Your task to perform on an android device: Clear all items from cart on newegg.com. Image 0: 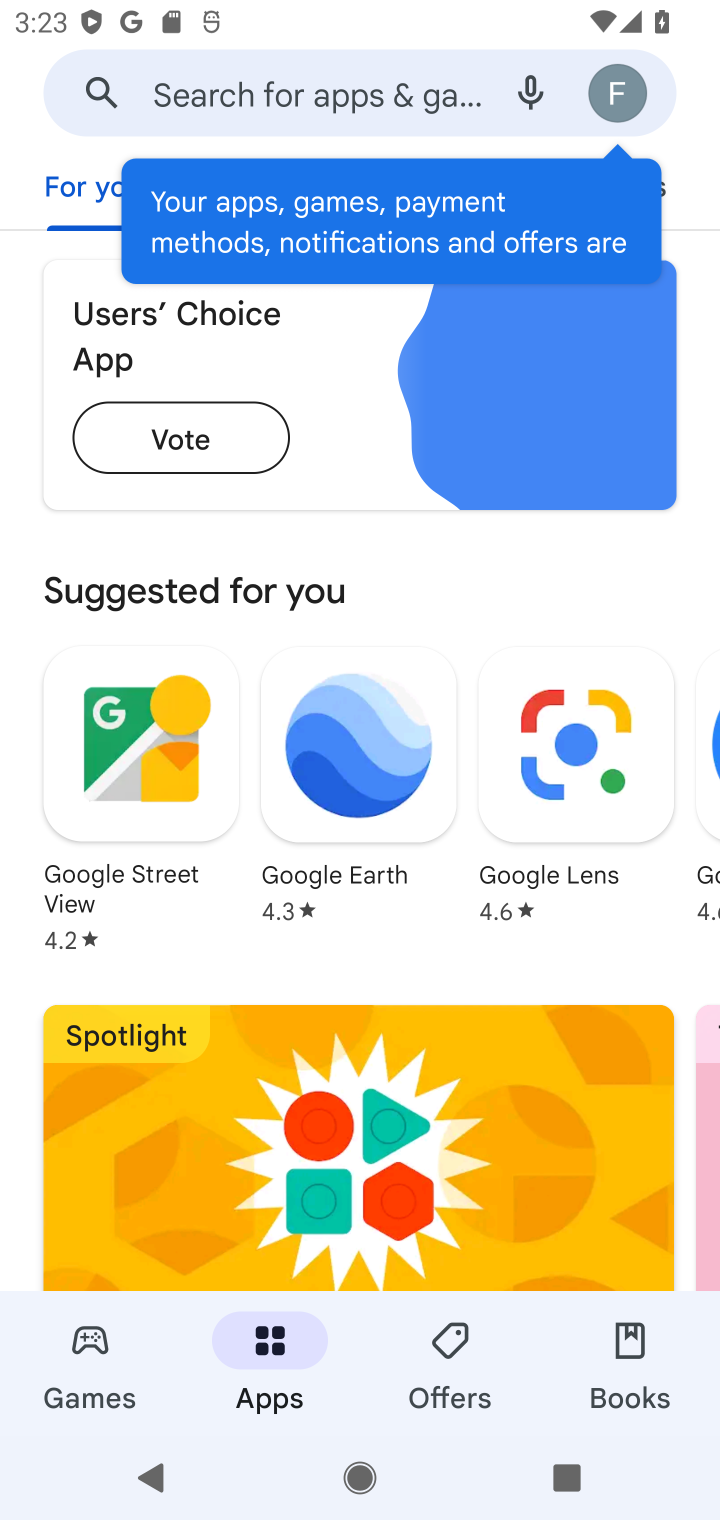
Step 0: press home button
Your task to perform on an android device: Clear all items from cart on newegg.com. Image 1: 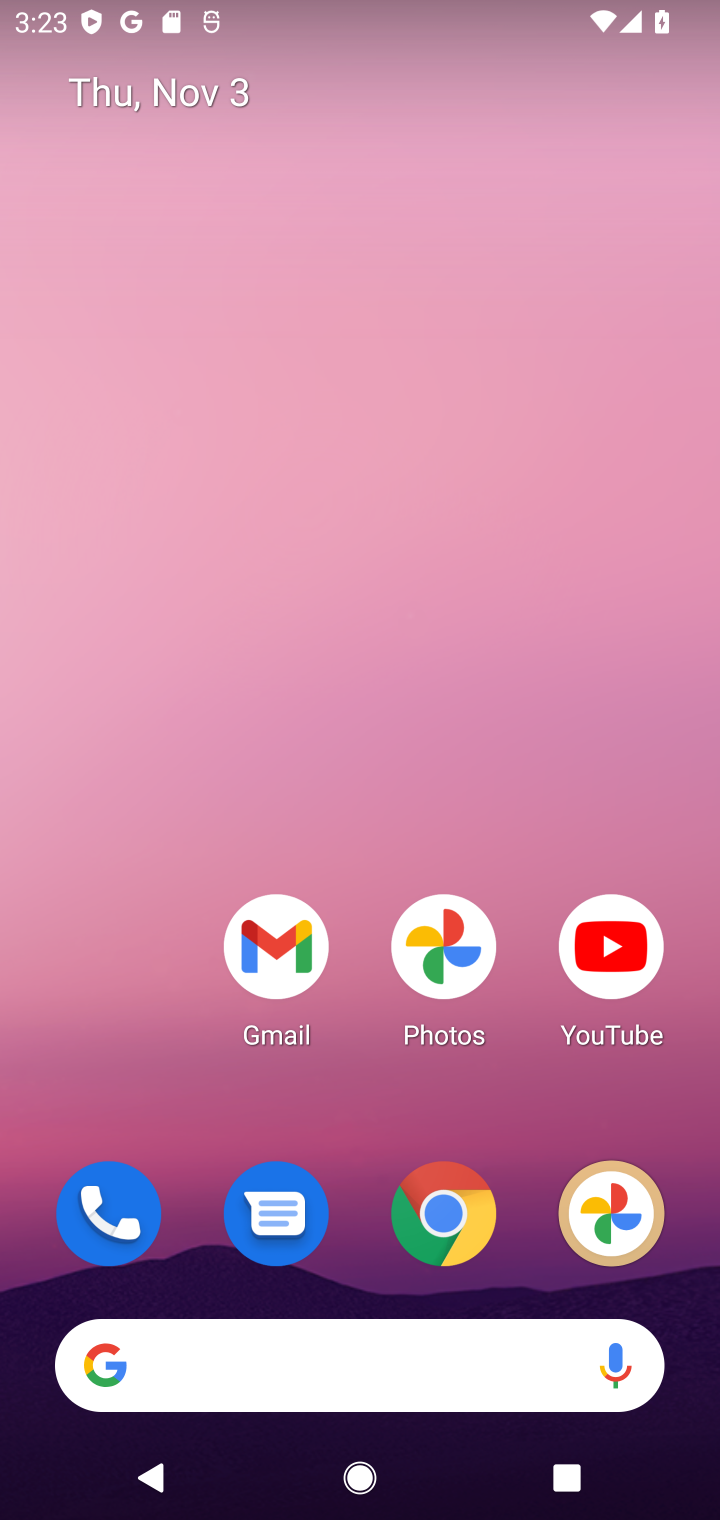
Step 1: click (453, 1183)
Your task to perform on an android device: Clear all items from cart on newegg.com. Image 2: 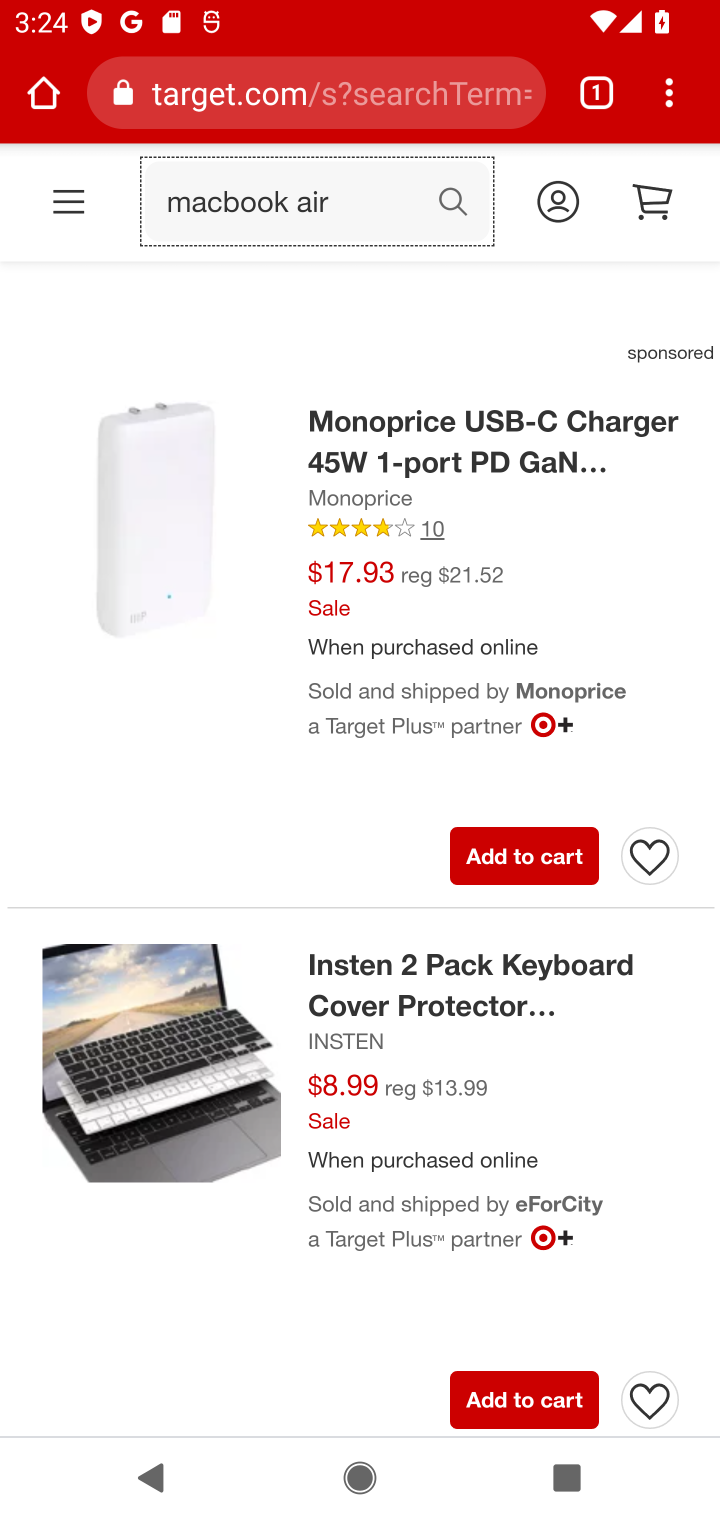
Step 2: click (257, 105)
Your task to perform on an android device: Clear all items from cart on newegg.com. Image 3: 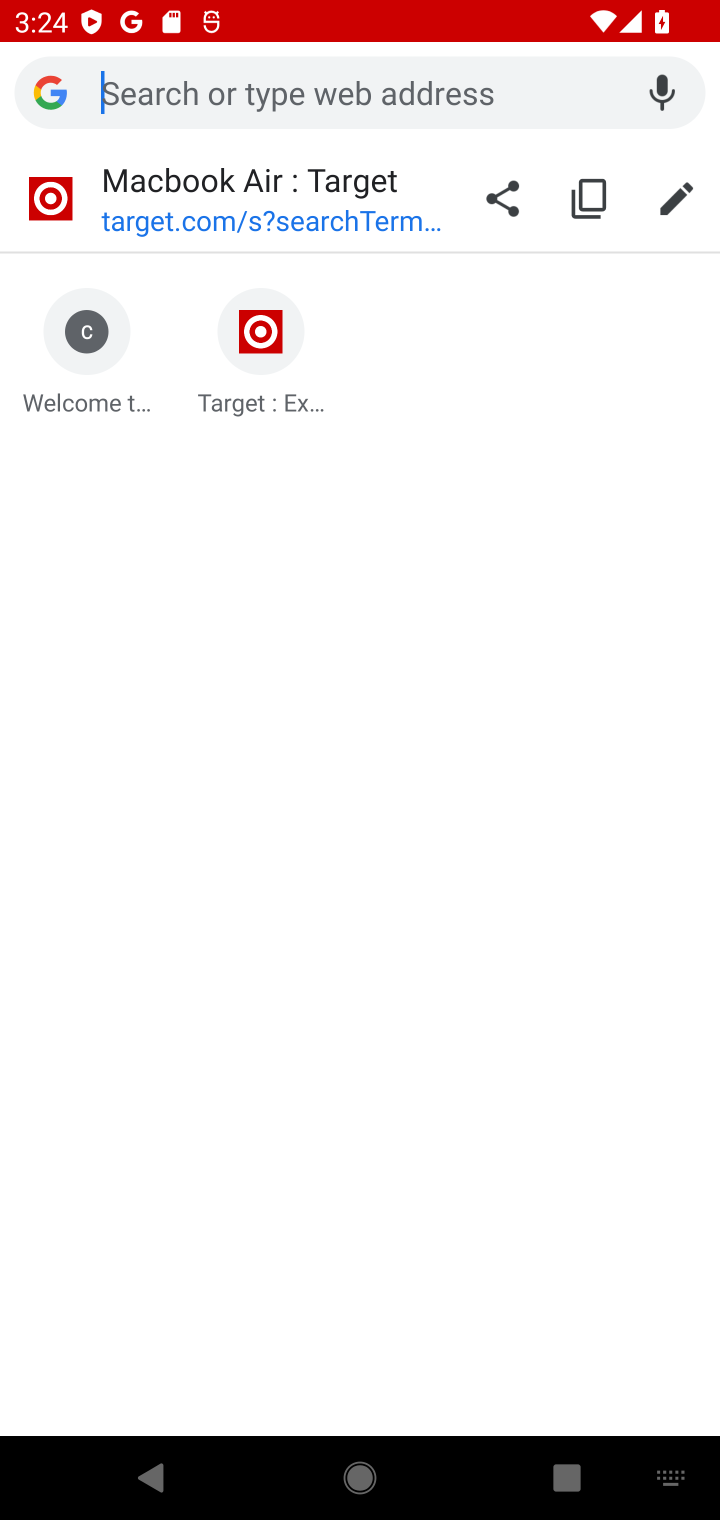
Step 3: type "newegg.com"
Your task to perform on an android device: Clear all items from cart on newegg.com. Image 4: 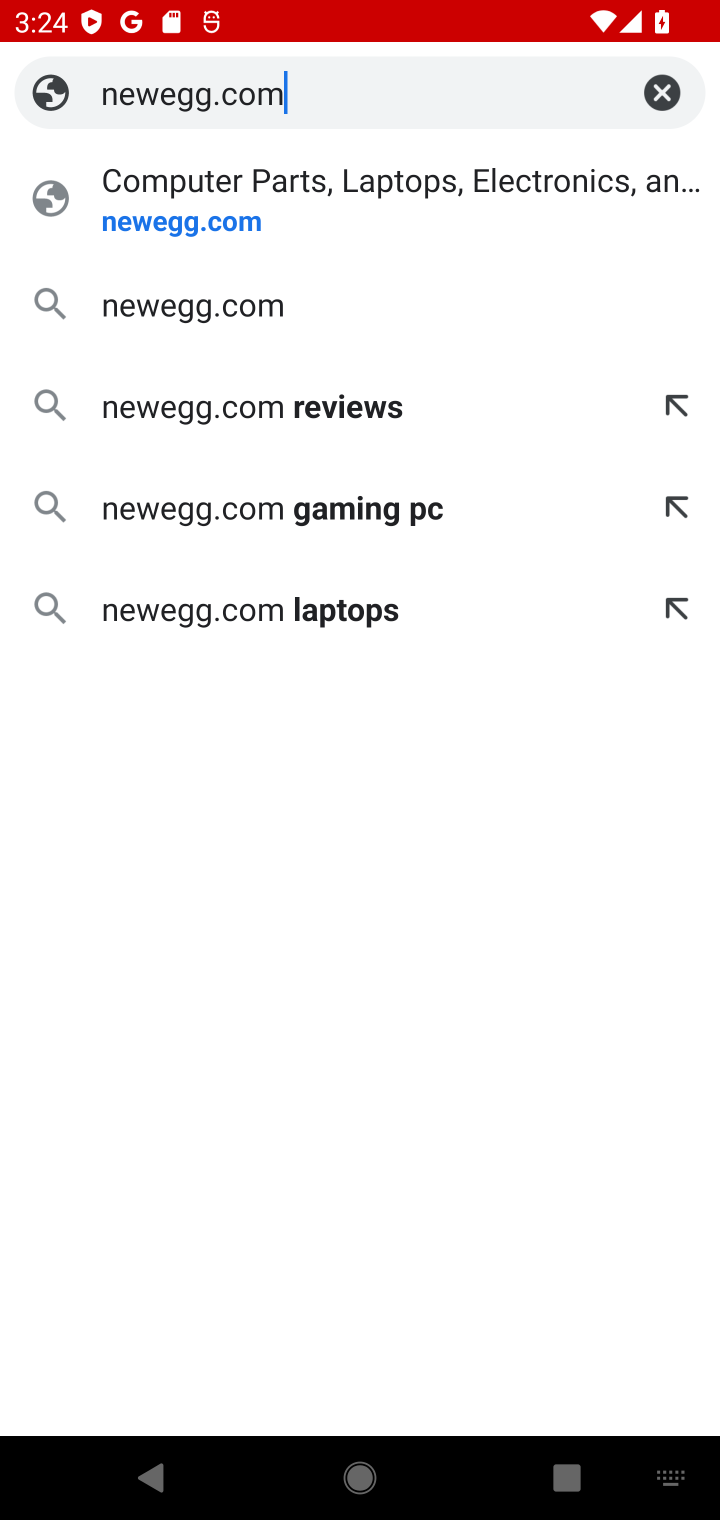
Step 4: click (176, 235)
Your task to perform on an android device: Clear all items from cart on newegg.com. Image 5: 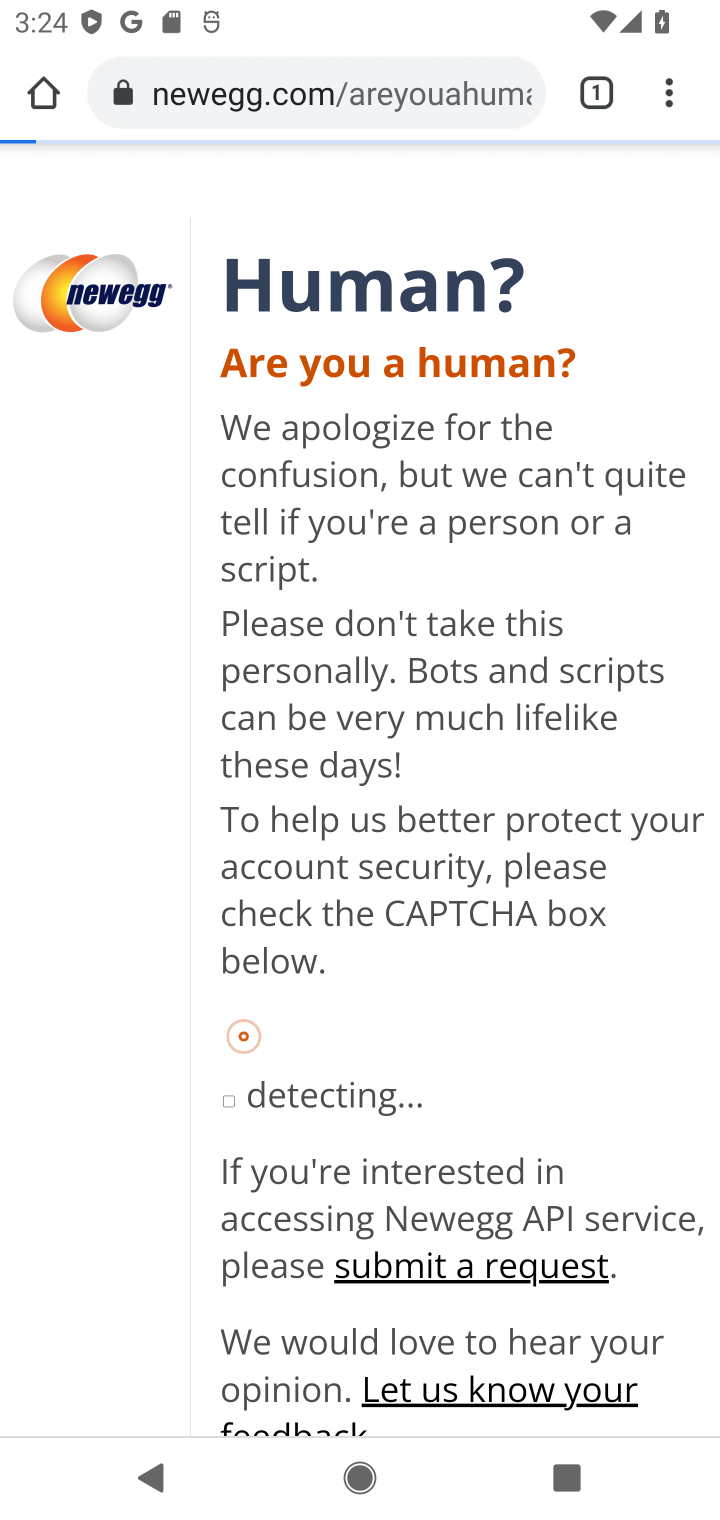
Step 5: press back button
Your task to perform on an android device: Clear all items from cart on newegg.com. Image 6: 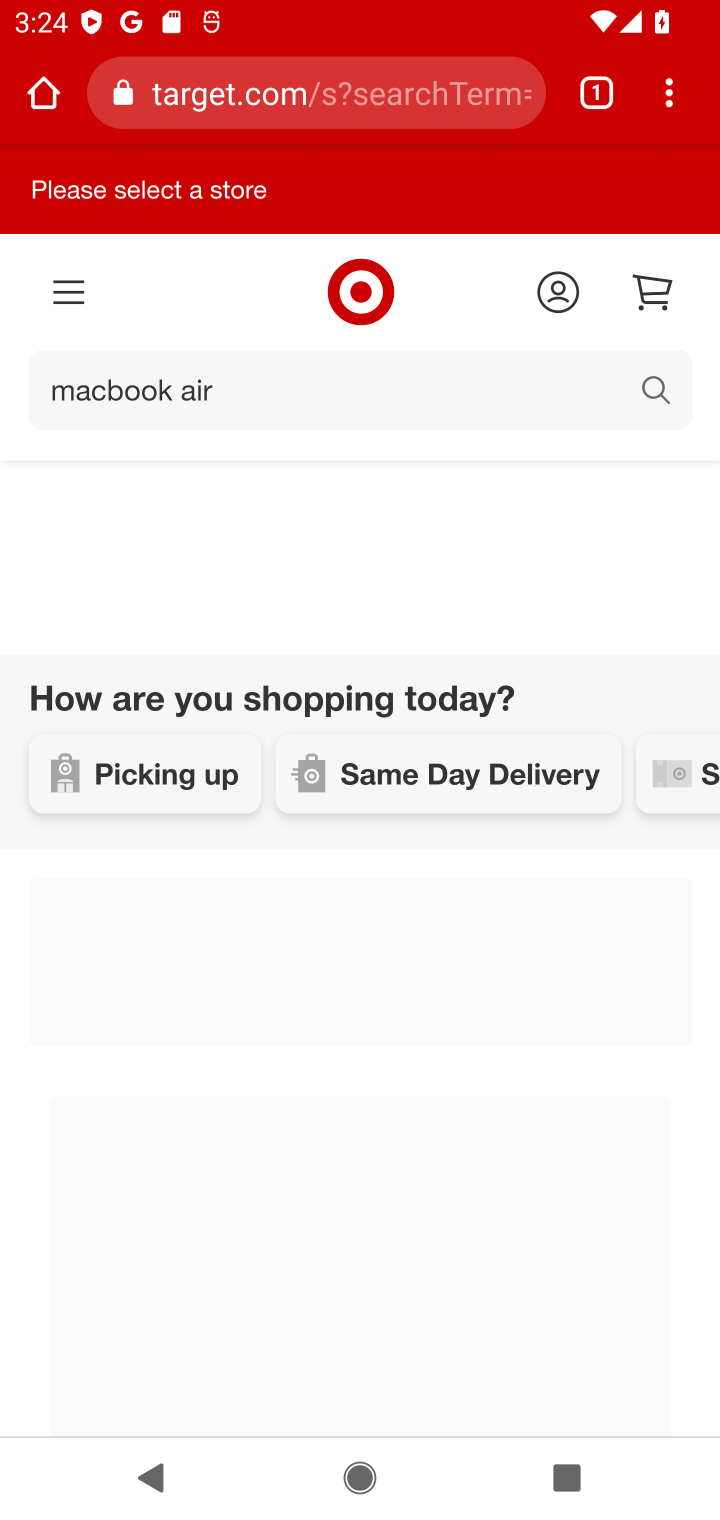
Step 6: click (315, 104)
Your task to perform on an android device: Clear all items from cart on newegg.com. Image 7: 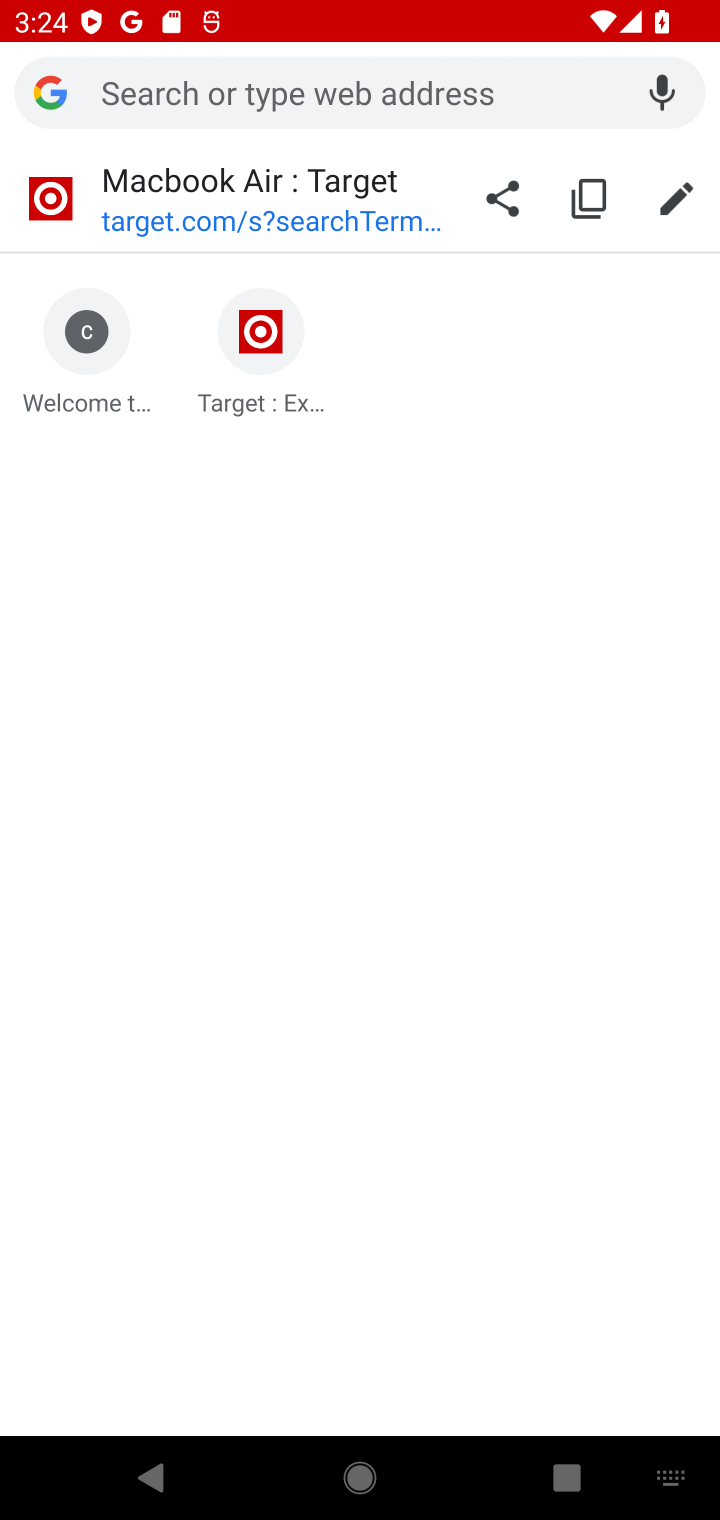
Step 7: type "newegg.com"
Your task to perform on an android device: Clear all items from cart on newegg.com. Image 8: 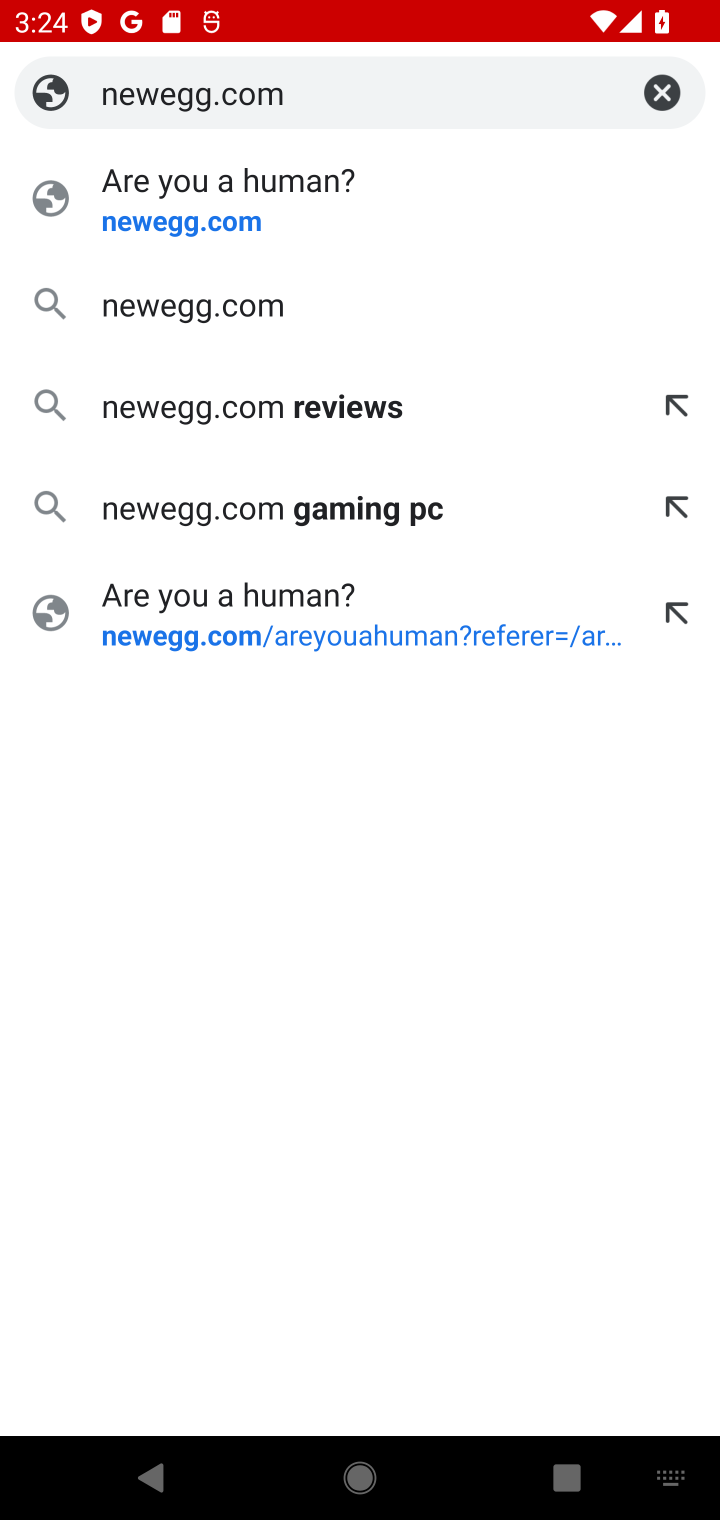
Step 8: click (226, 334)
Your task to perform on an android device: Clear all items from cart on newegg.com. Image 9: 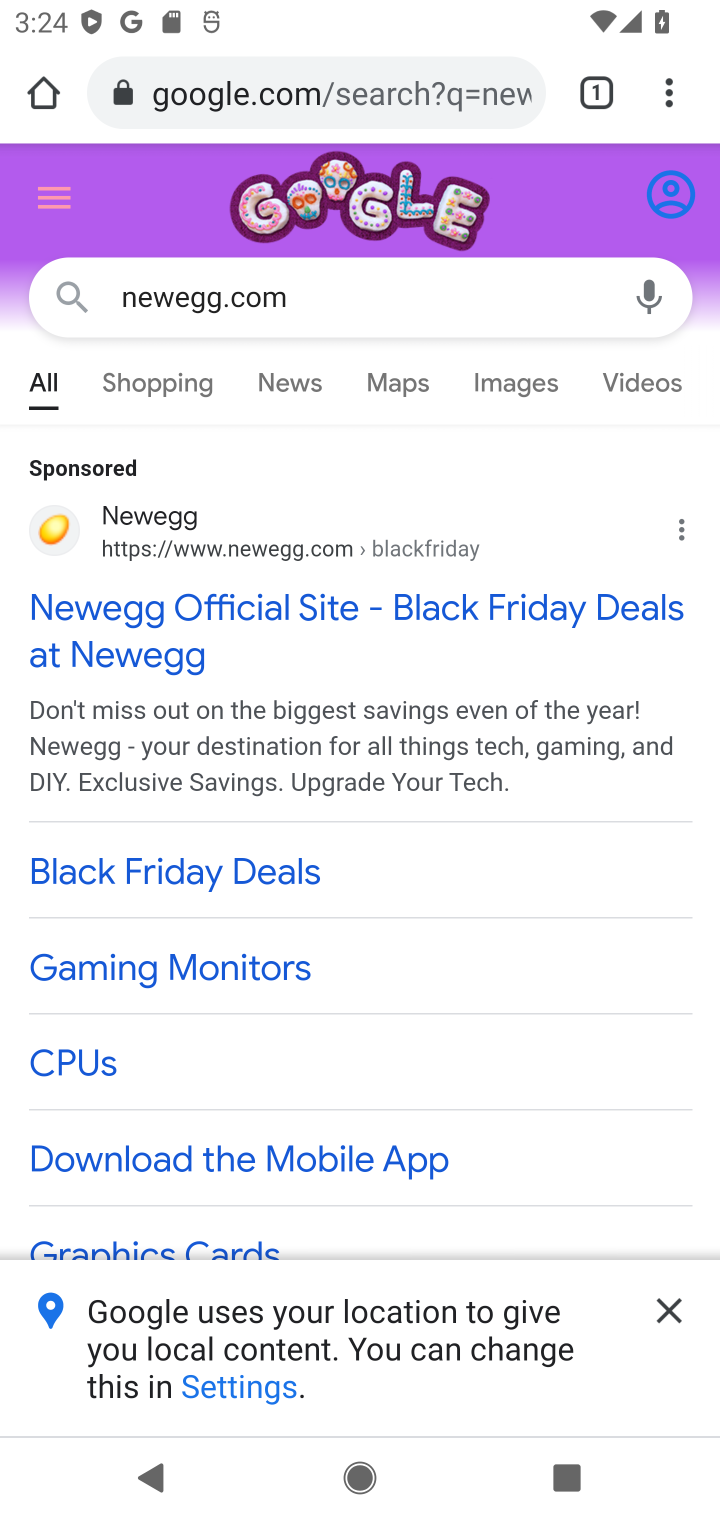
Step 9: drag from (414, 974) to (399, 492)
Your task to perform on an android device: Clear all items from cart on newegg.com. Image 10: 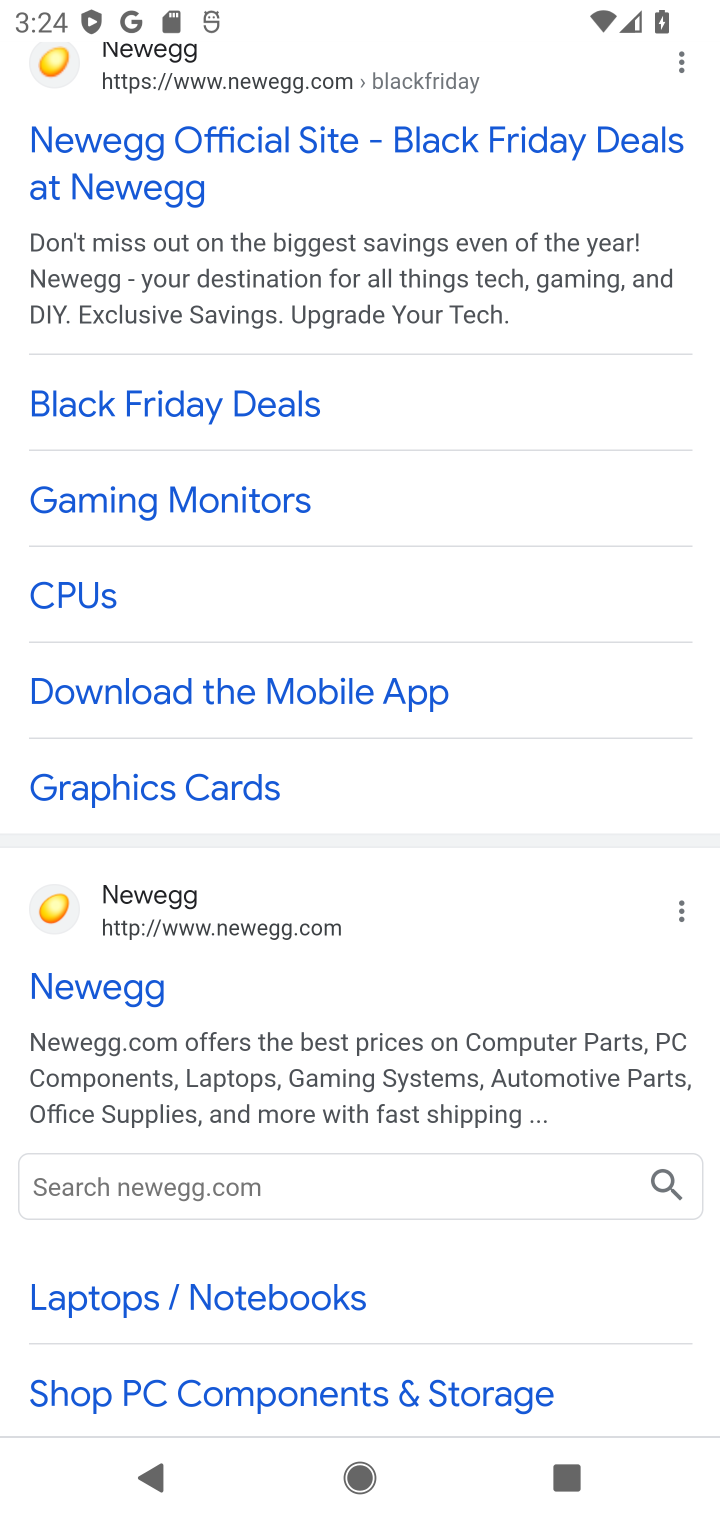
Step 10: click (122, 994)
Your task to perform on an android device: Clear all items from cart on newegg.com. Image 11: 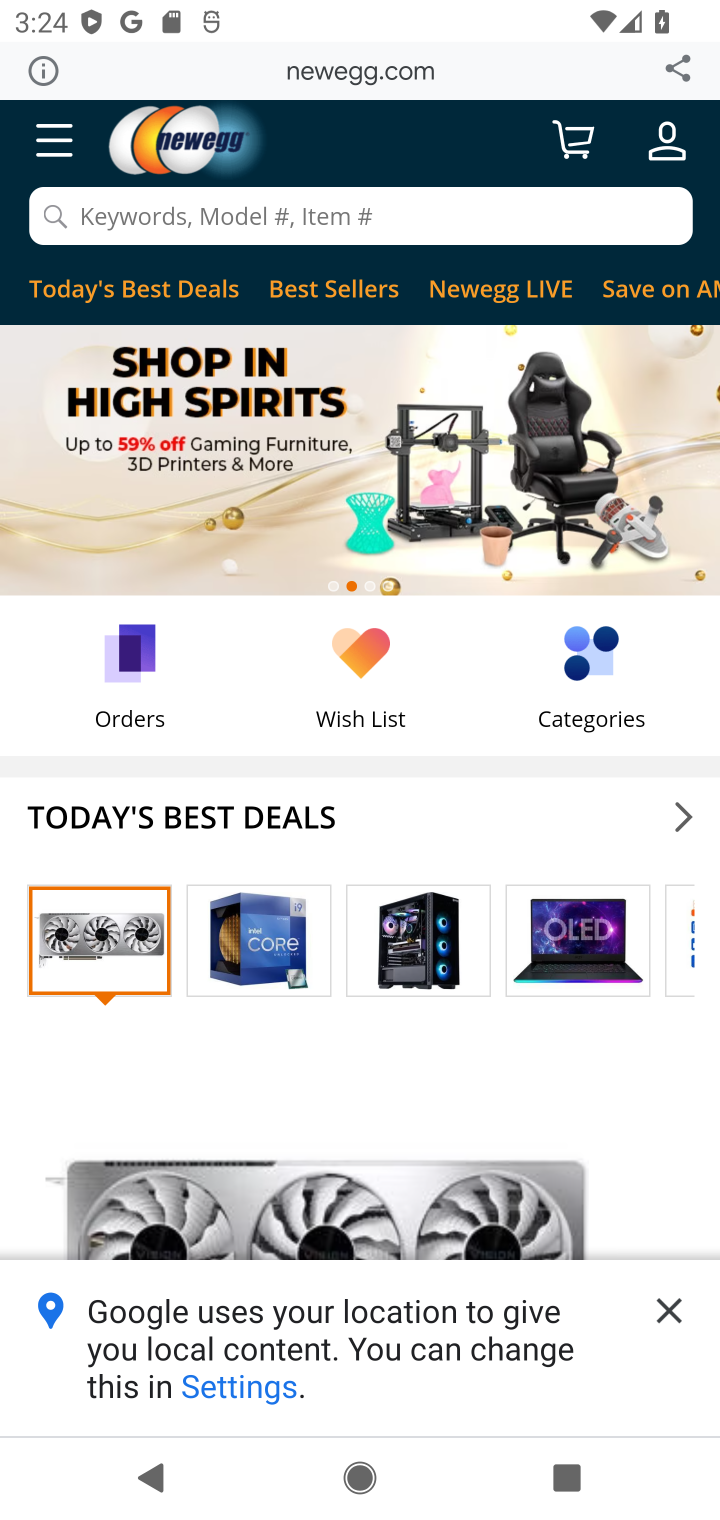
Step 11: click (562, 138)
Your task to perform on an android device: Clear all items from cart on newegg.com. Image 12: 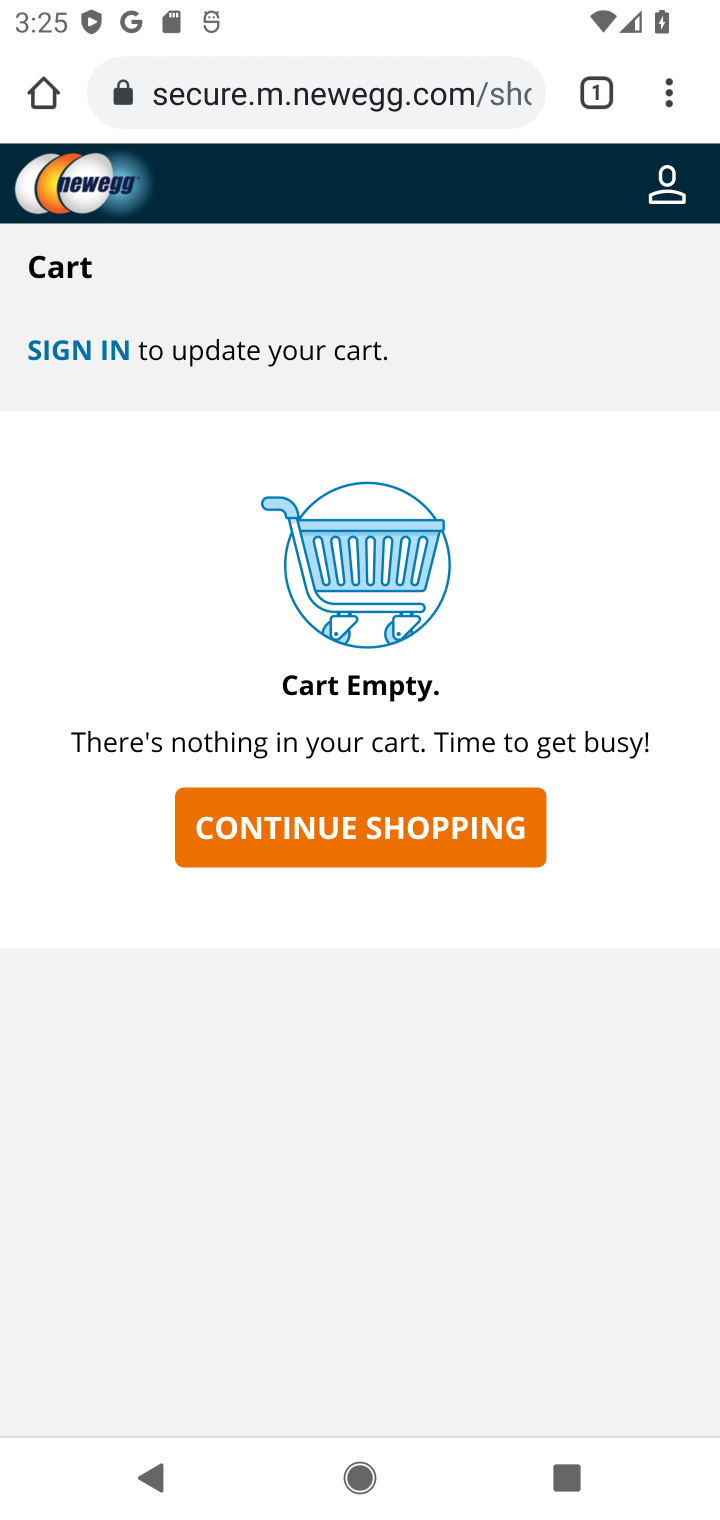
Step 12: task complete